Your task to perform on an android device: change keyboard looks Image 0: 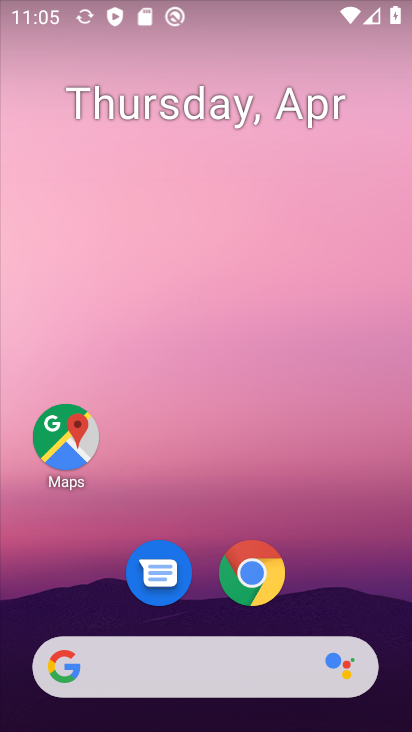
Step 0: drag from (322, 576) to (339, 57)
Your task to perform on an android device: change keyboard looks Image 1: 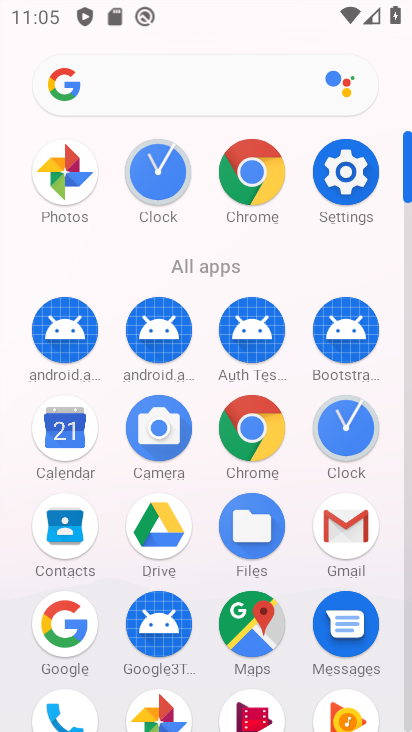
Step 1: click (338, 175)
Your task to perform on an android device: change keyboard looks Image 2: 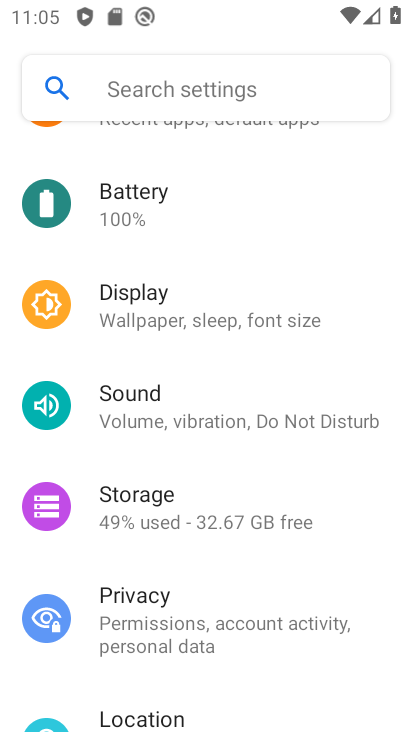
Step 2: drag from (301, 621) to (313, 148)
Your task to perform on an android device: change keyboard looks Image 3: 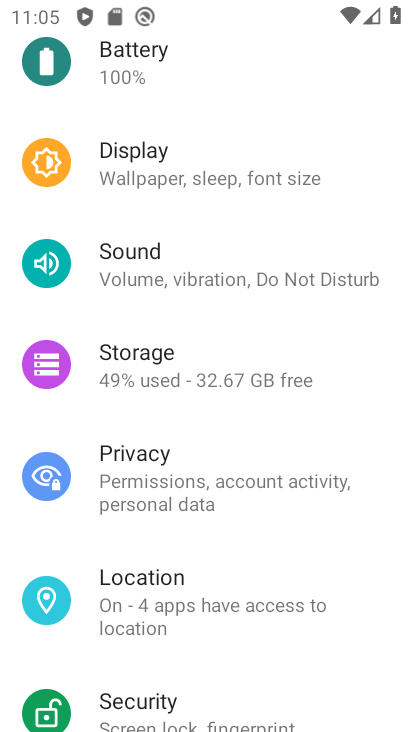
Step 3: drag from (288, 600) to (288, 210)
Your task to perform on an android device: change keyboard looks Image 4: 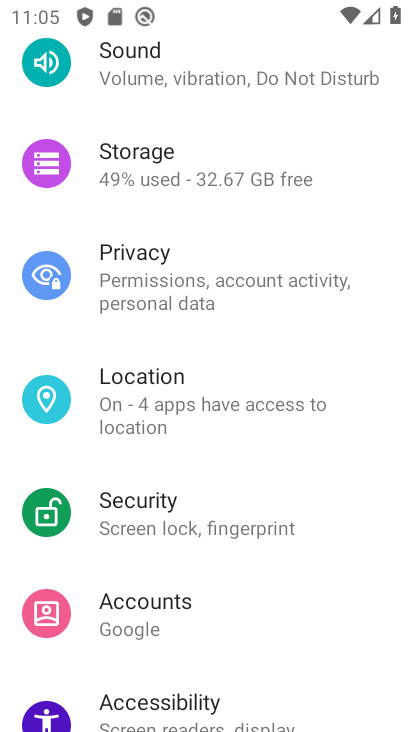
Step 4: drag from (274, 573) to (274, 221)
Your task to perform on an android device: change keyboard looks Image 5: 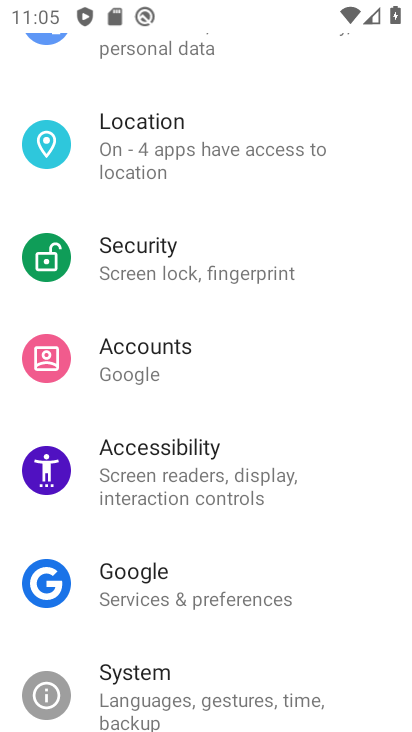
Step 5: click (228, 693)
Your task to perform on an android device: change keyboard looks Image 6: 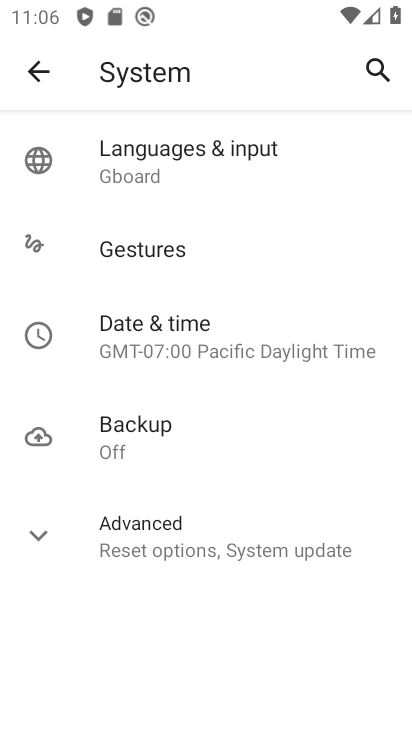
Step 6: click (178, 165)
Your task to perform on an android device: change keyboard looks Image 7: 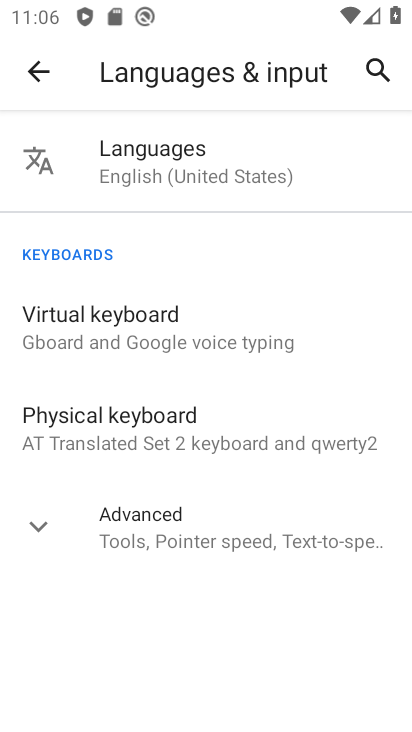
Step 7: click (174, 326)
Your task to perform on an android device: change keyboard looks Image 8: 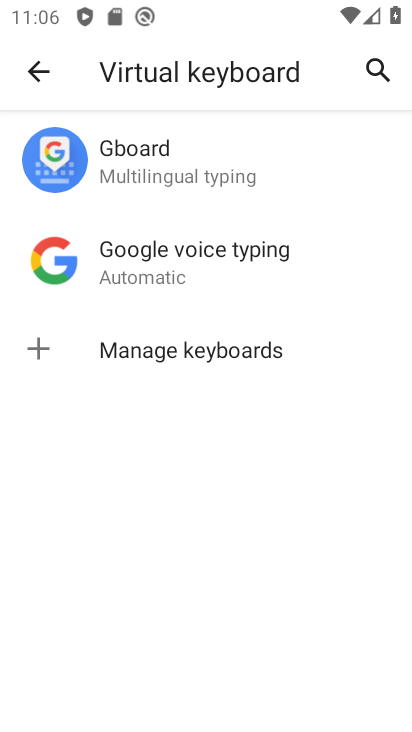
Step 8: click (178, 173)
Your task to perform on an android device: change keyboard looks Image 9: 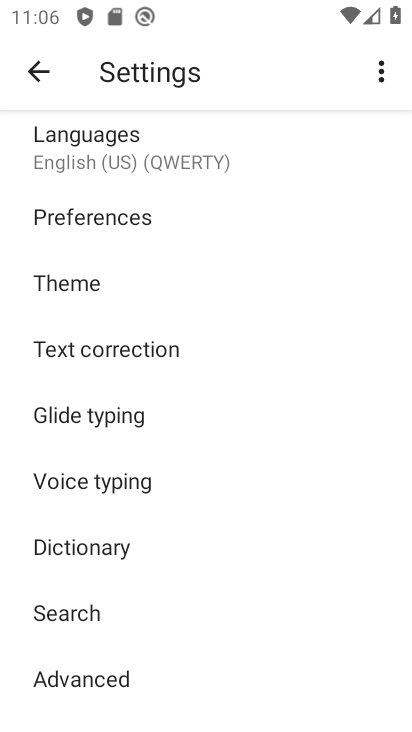
Step 9: click (102, 283)
Your task to perform on an android device: change keyboard looks Image 10: 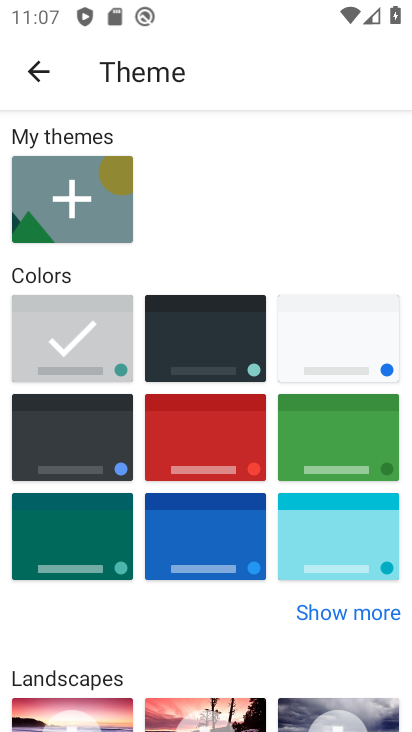
Step 10: click (222, 341)
Your task to perform on an android device: change keyboard looks Image 11: 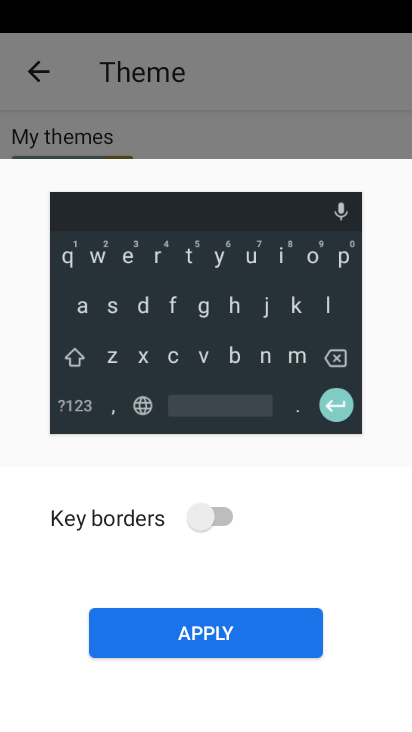
Step 11: click (225, 508)
Your task to perform on an android device: change keyboard looks Image 12: 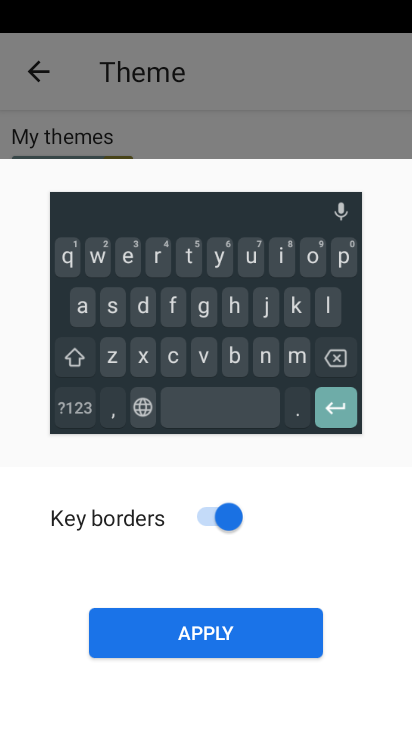
Step 12: click (242, 625)
Your task to perform on an android device: change keyboard looks Image 13: 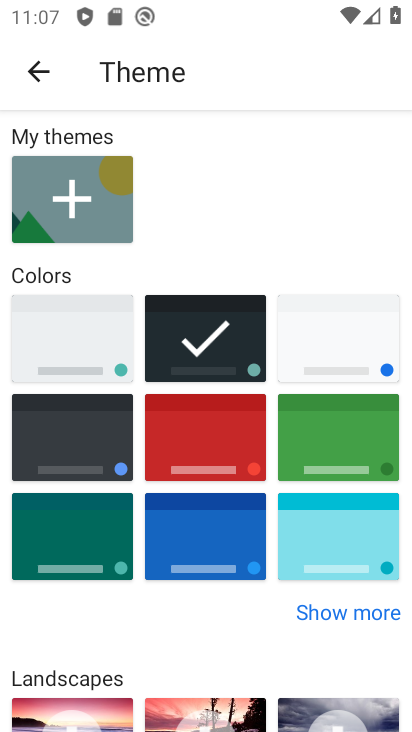
Step 13: task complete